Your task to perform on an android device: Do I have any events this weekend? Image 0: 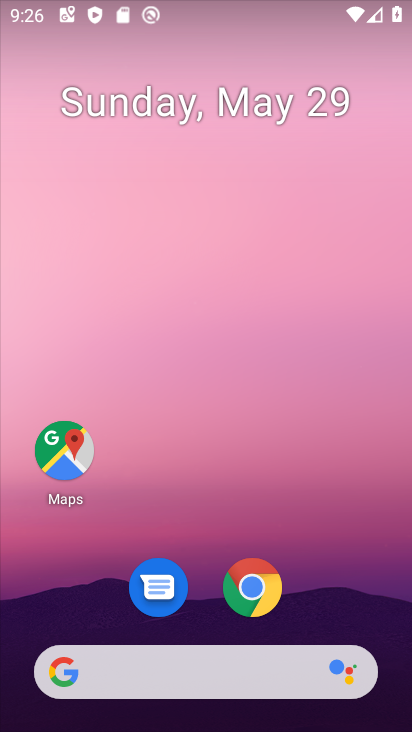
Step 0: drag from (207, 526) to (278, 67)
Your task to perform on an android device: Do I have any events this weekend? Image 1: 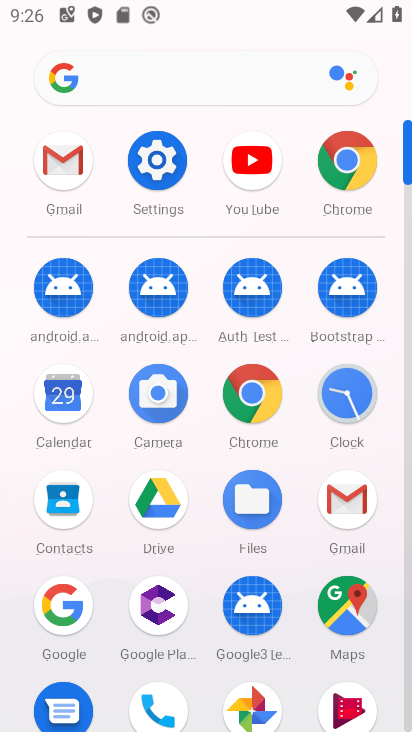
Step 1: click (64, 407)
Your task to perform on an android device: Do I have any events this weekend? Image 2: 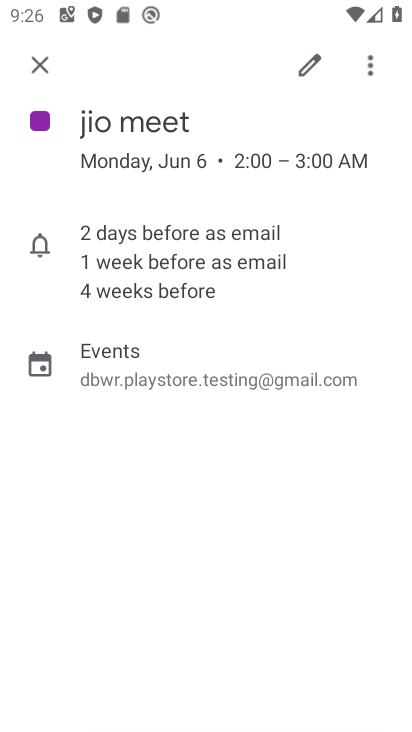
Step 2: click (39, 54)
Your task to perform on an android device: Do I have any events this weekend? Image 3: 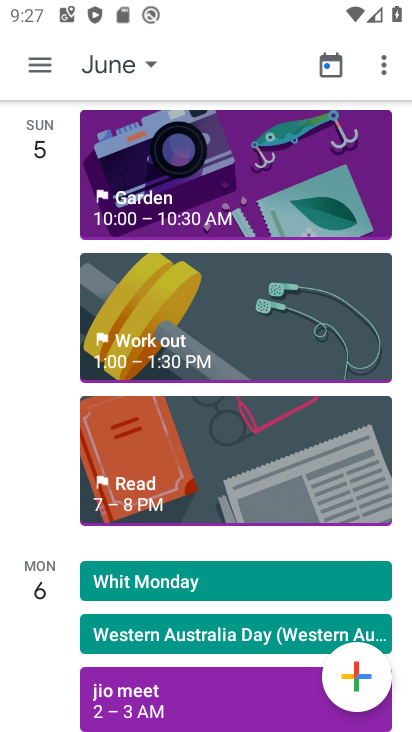
Step 3: drag from (175, 644) to (198, 702)
Your task to perform on an android device: Do I have any events this weekend? Image 4: 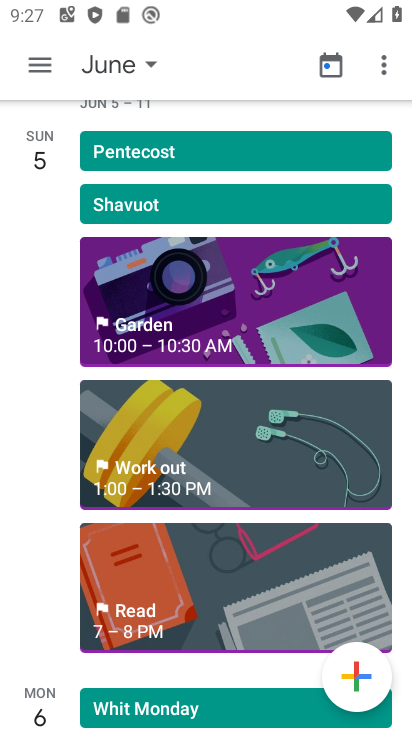
Step 4: click (137, 153)
Your task to perform on an android device: Do I have any events this weekend? Image 5: 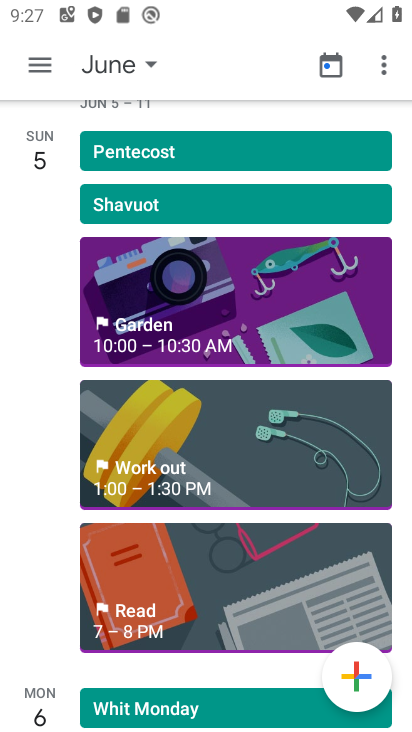
Step 5: task complete